Your task to perform on an android device: Search for vegetarian restaurants on Maps Image 0: 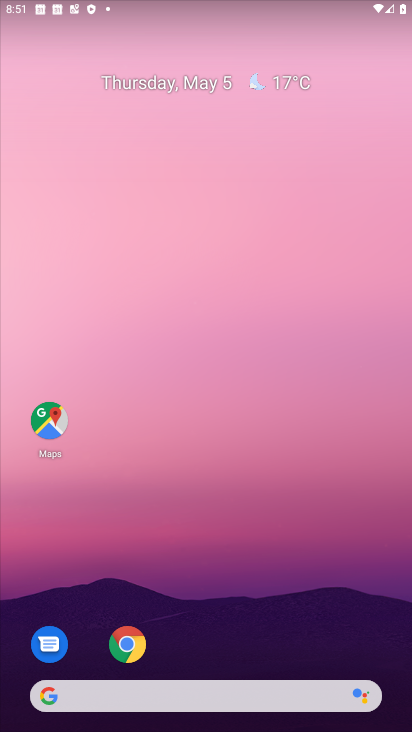
Step 0: drag from (177, 611) to (199, 135)
Your task to perform on an android device: Search for vegetarian restaurants on Maps Image 1: 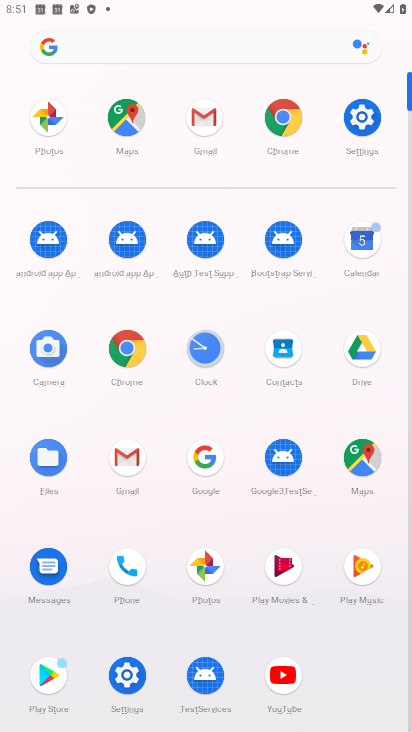
Step 1: click (363, 460)
Your task to perform on an android device: Search for vegetarian restaurants on Maps Image 2: 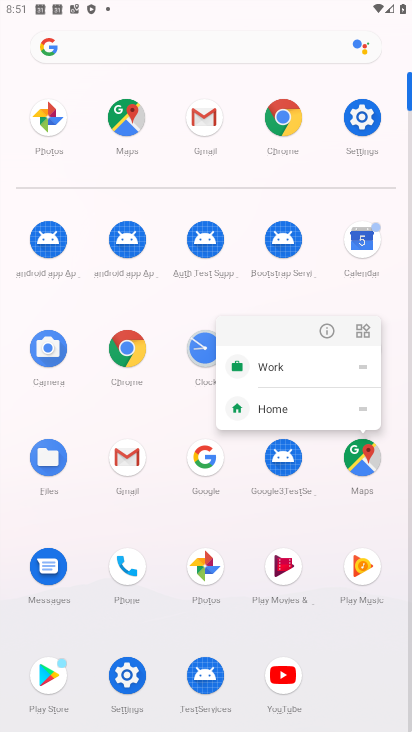
Step 2: click (324, 335)
Your task to perform on an android device: Search for vegetarian restaurants on Maps Image 3: 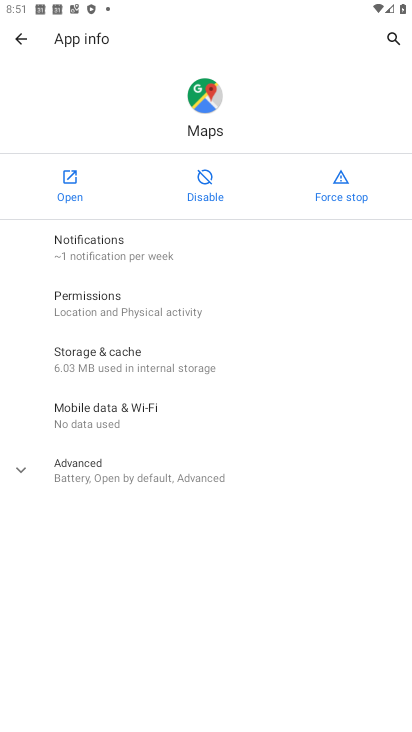
Step 3: click (65, 197)
Your task to perform on an android device: Search for vegetarian restaurants on Maps Image 4: 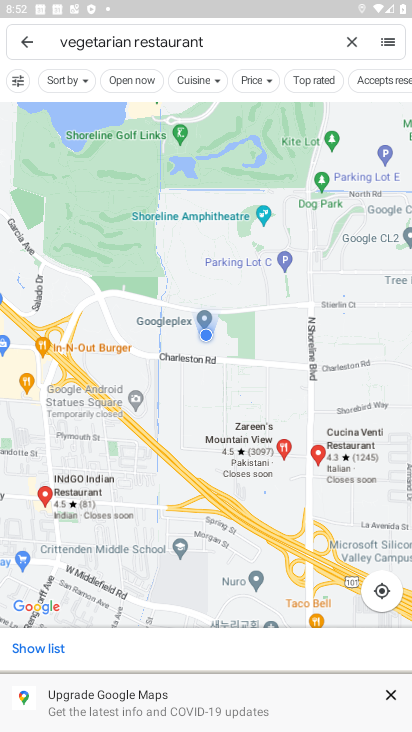
Step 4: click (272, 52)
Your task to perform on an android device: Search for vegetarian restaurants on Maps Image 5: 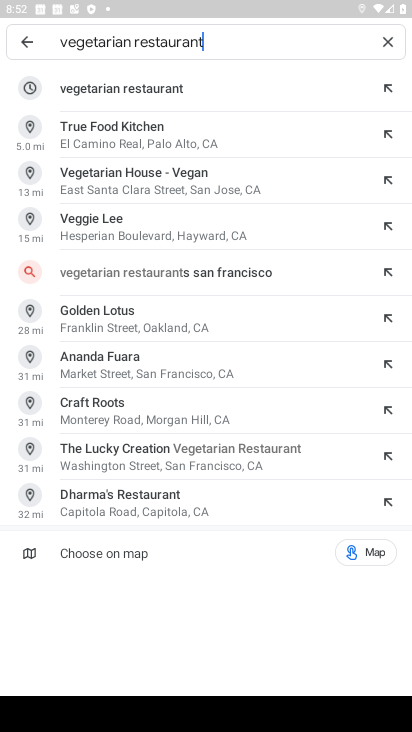
Step 5: click (141, 84)
Your task to perform on an android device: Search for vegetarian restaurants on Maps Image 6: 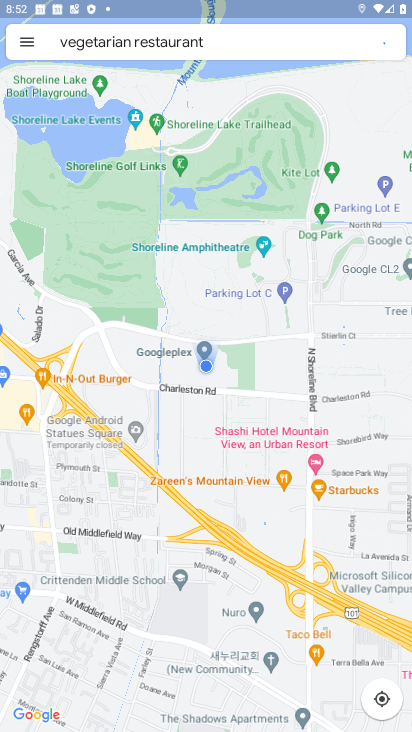
Step 6: task complete